Your task to perform on an android device: change notification settings in the gmail app Image 0: 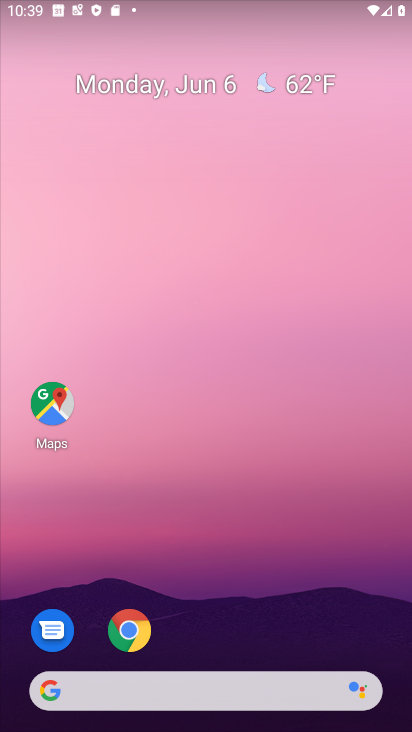
Step 0: drag from (320, 601) to (330, 226)
Your task to perform on an android device: change notification settings in the gmail app Image 1: 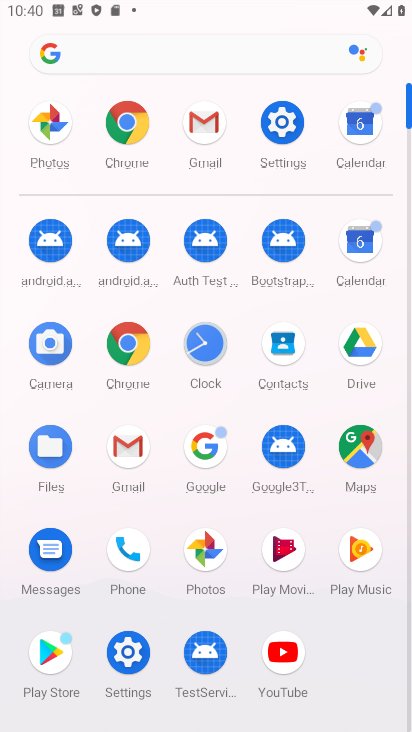
Step 1: click (142, 659)
Your task to perform on an android device: change notification settings in the gmail app Image 2: 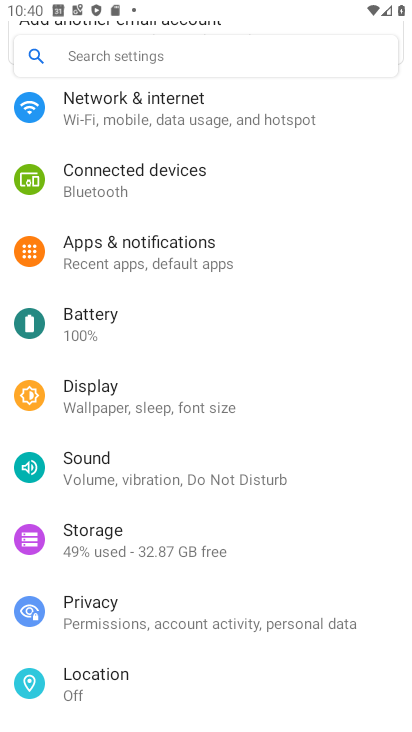
Step 2: press home button
Your task to perform on an android device: change notification settings in the gmail app Image 3: 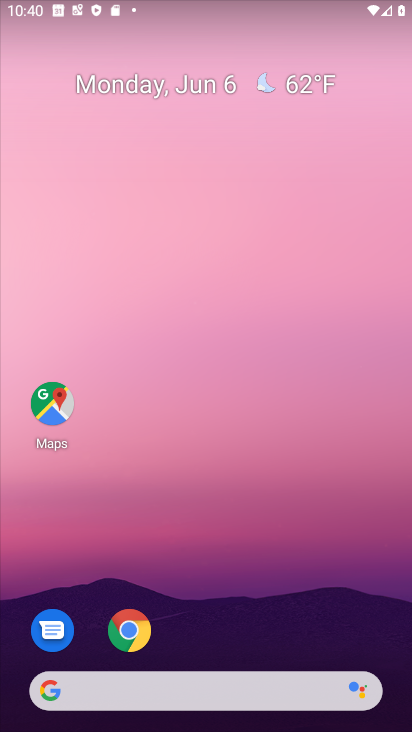
Step 3: drag from (356, 274) to (356, 143)
Your task to perform on an android device: change notification settings in the gmail app Image 4: 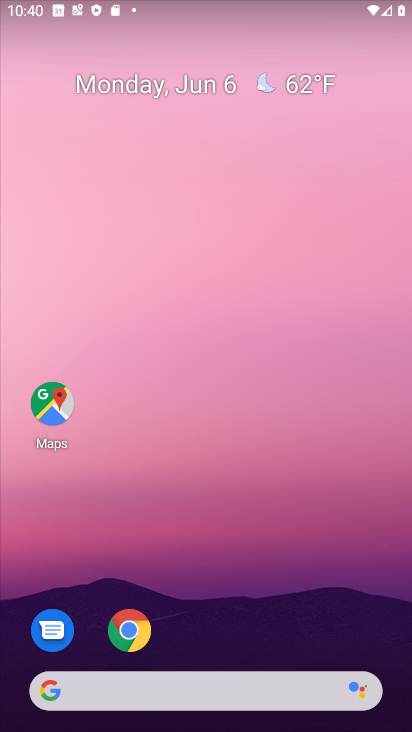
Step 4: drag from (338, 631) to (346, 169)
Your task to perform on an android device: change notification settings in the gmail app Image 5: 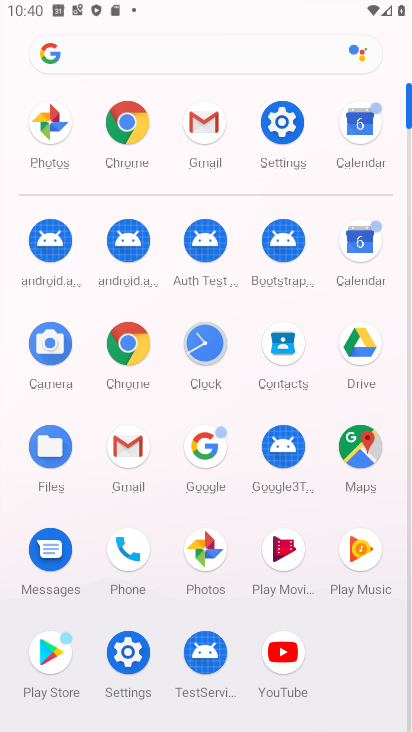
Step 5: click (118, 451)
Your task to perform on an android device: change notification settings in the gmail app Image 6: 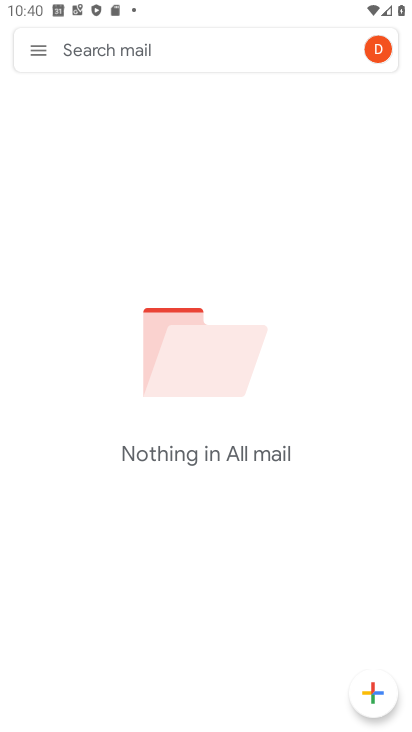
Step 6: click (31, 50)
Your task to perform on an android device: change notification settings in the gmail app Image 7: 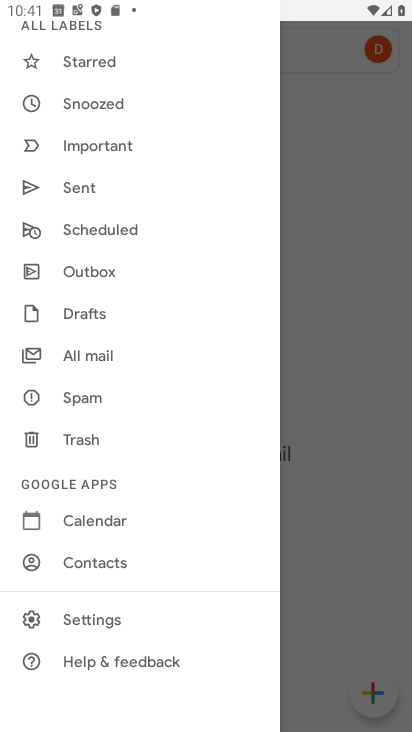
Step 7: click (112, 623)
Your task to perform on an android device: change notification settings in the gmail app Image 8: 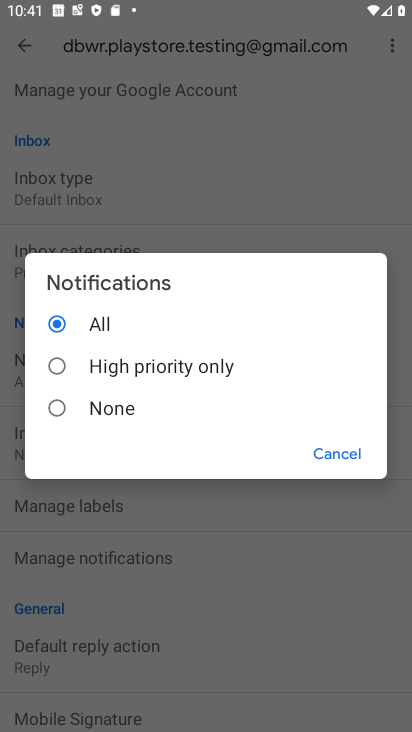
Step 8: click (336, 447)
Your task to perform on an android device: change notification settings in the gmail app Image 9: 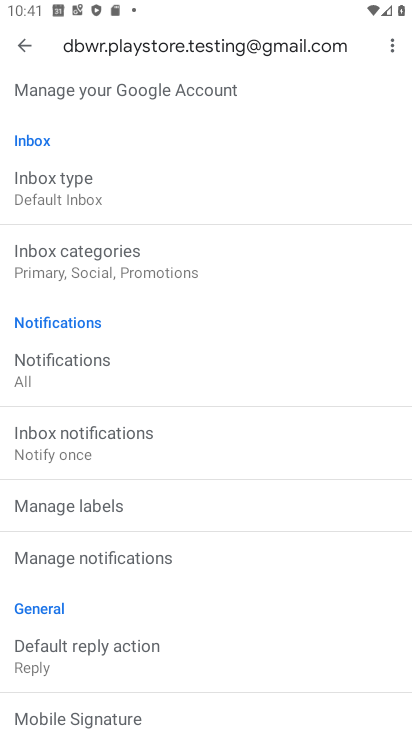
Step 9: click (74, 363)
Your task to perform on an android device: change notification settings in the gmail app Image 10: 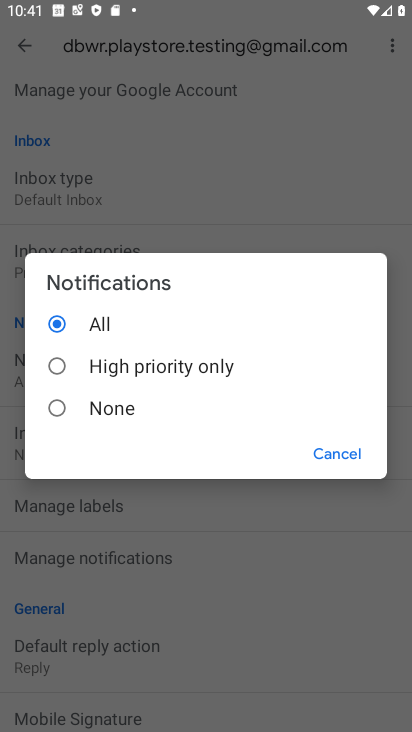
Step 10: click (70, 367)
Your task to perform on an android device: change notification settings in the gmail app Image 11: 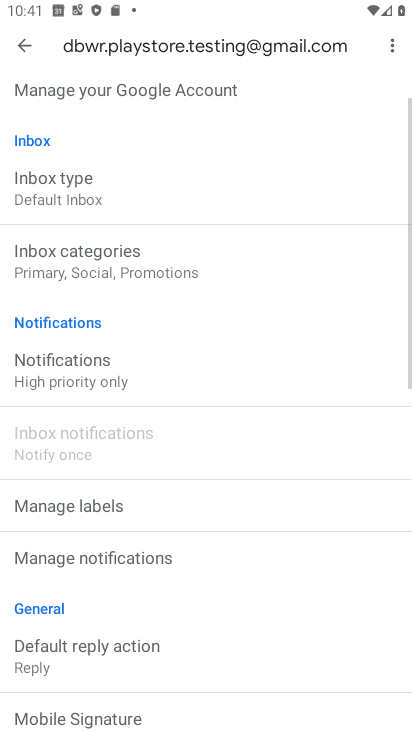
Step 11: task complete